Your task to perform on an android device: empty trash in the gmail app Image 0: 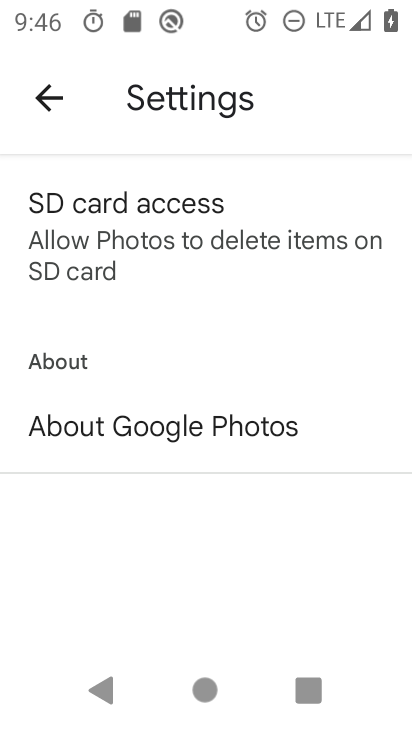
Step 0: press home button
Your task to perform on an android device: empty trash in the gmail app Image 1: 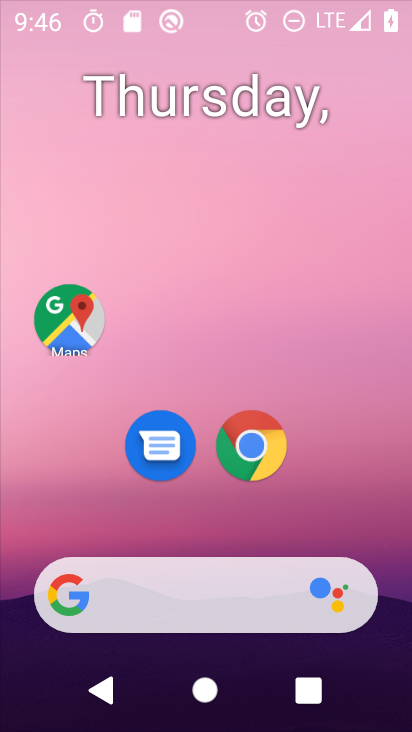
Step 1: drag from (177, 577) to (126, 101)
Your task to perform on an android device: empty trash in the gmail app Image 2: 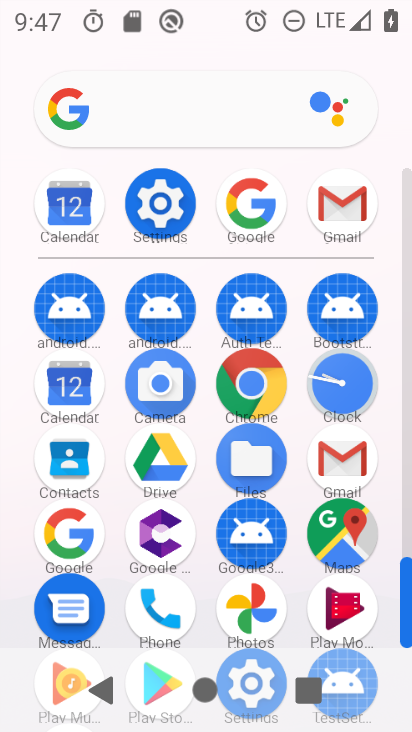
Step 2: click (333, 454)
Your task to perform on an android device: empty trash in the gmail app Image 3: 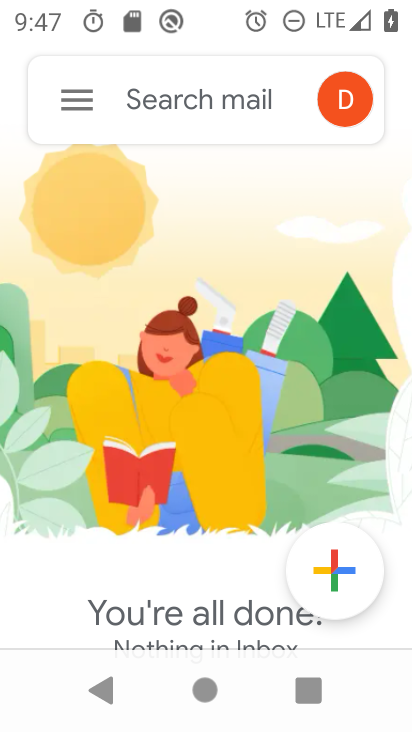
Step 3: click (77, 97)
Your task to perform on an android device: empty trash in the gmail app Image 4: 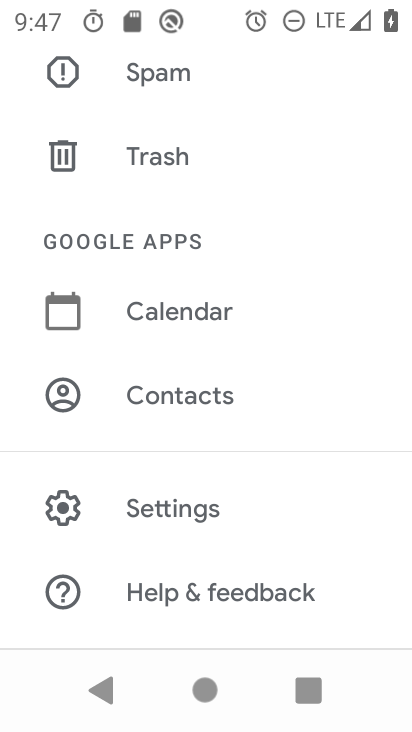
Step 4: click (108, 144)
Your task to perform on an android device: empty trash in the gmail app Image 5: 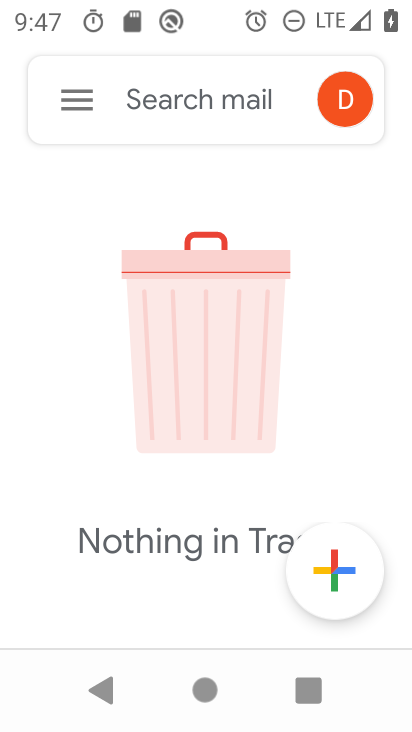
Step 5: click (77, 122)
Your task to perform on an android device: empty trash in the gmail app Image 6: 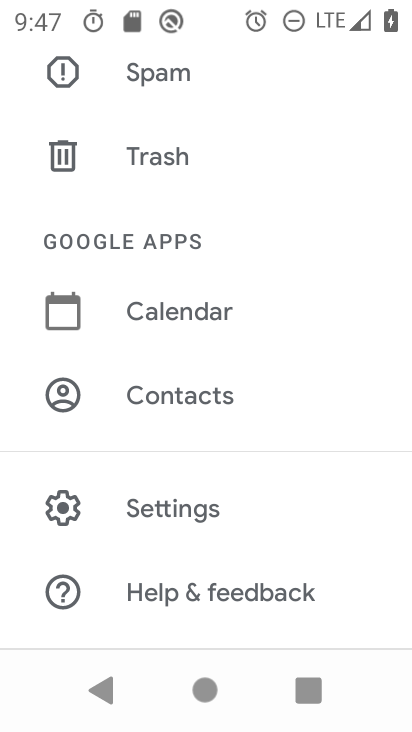
Step 6: click (154, 157)
Your task to perform on an android device: empty trash in the gmail app Image 7: 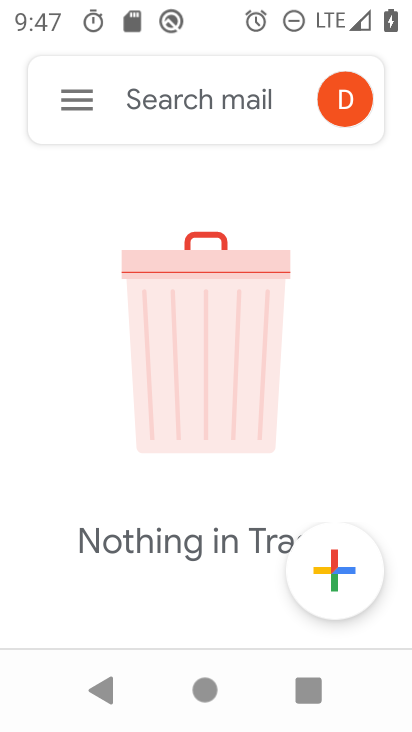
Step 7: task complete